Your task to perform on an android device: Is it going to rain tomorrow? Image 0: 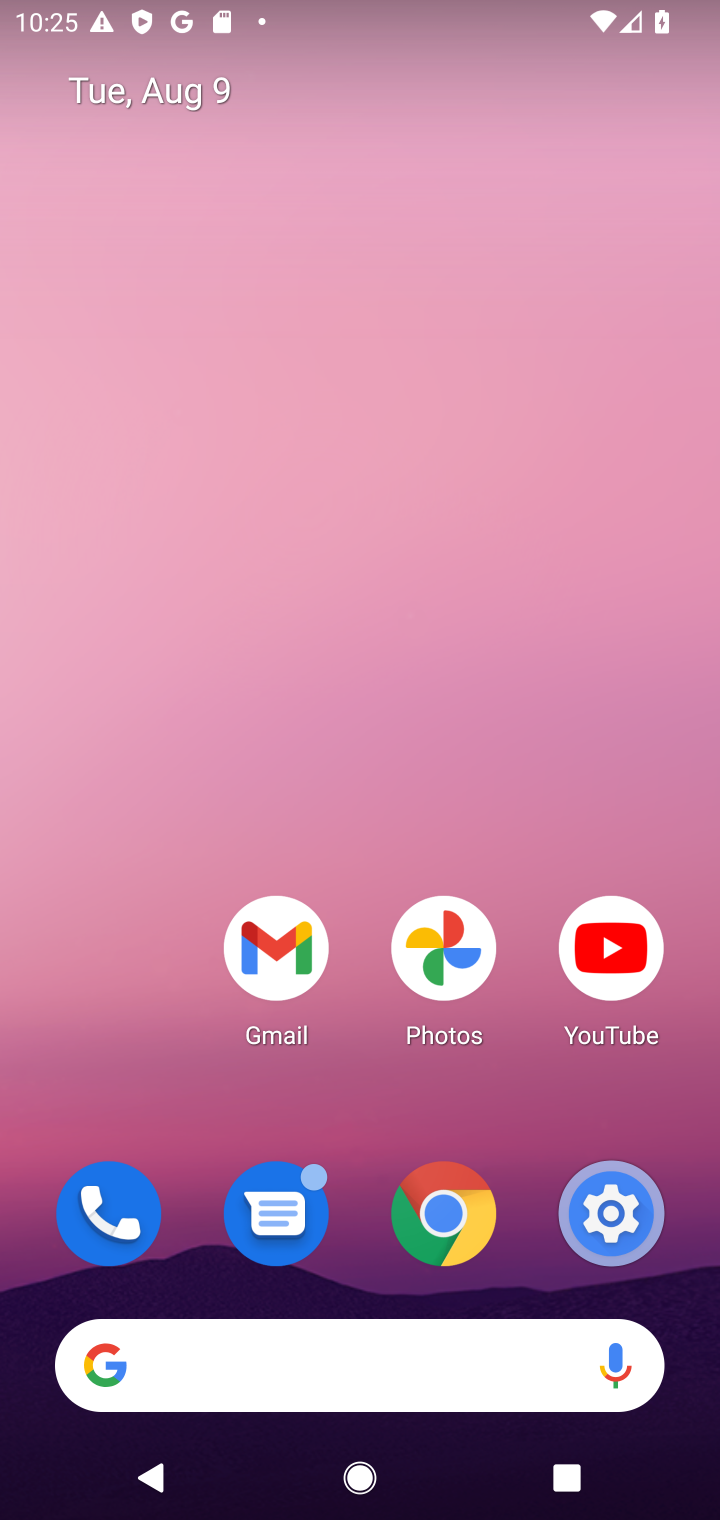
Step 0: drag from (365, 1268) to (428, 234)
Your task to perform on an android device: Is it going to rain tomorrow? Image 1: 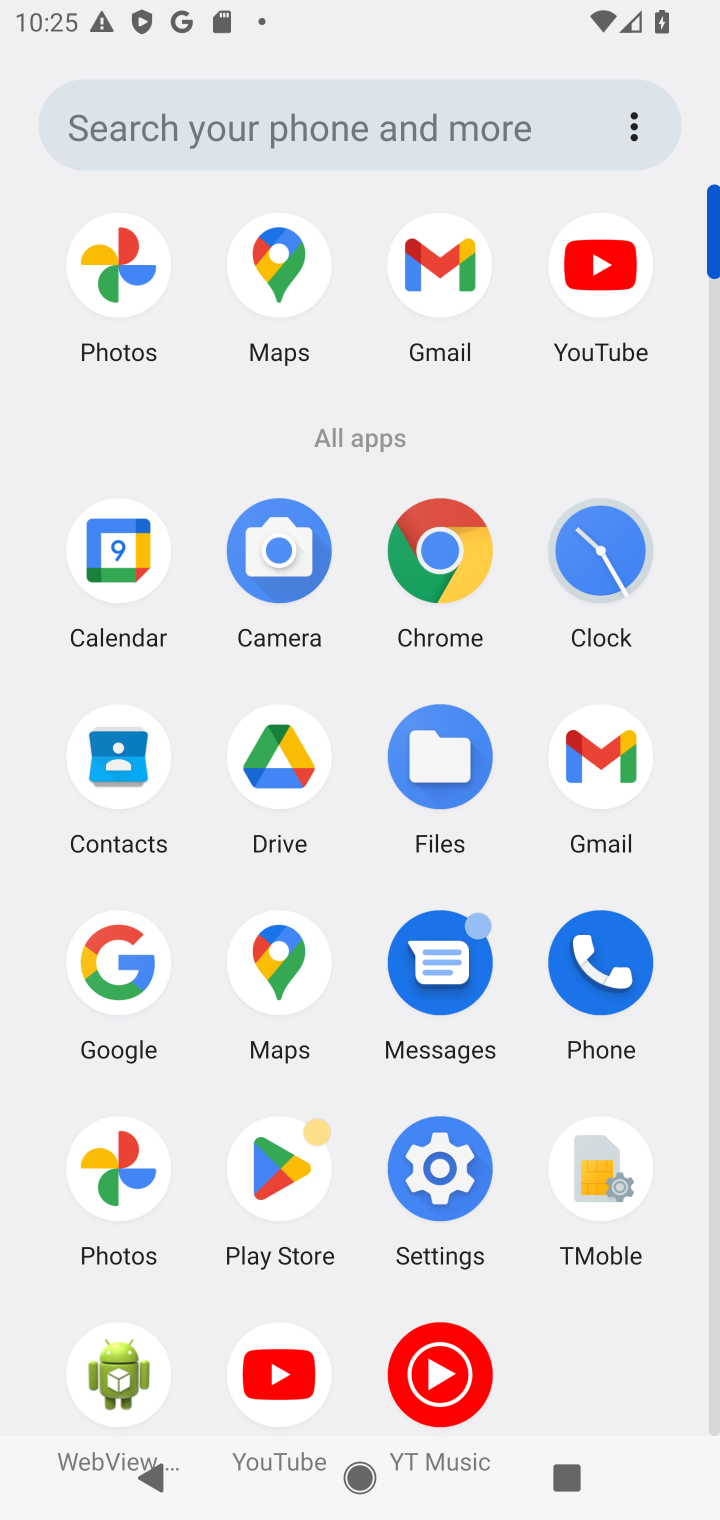
Step 1: click (100, 993)
Your task to perform on an android device: Is it going to rain tomorrow? Image 2: 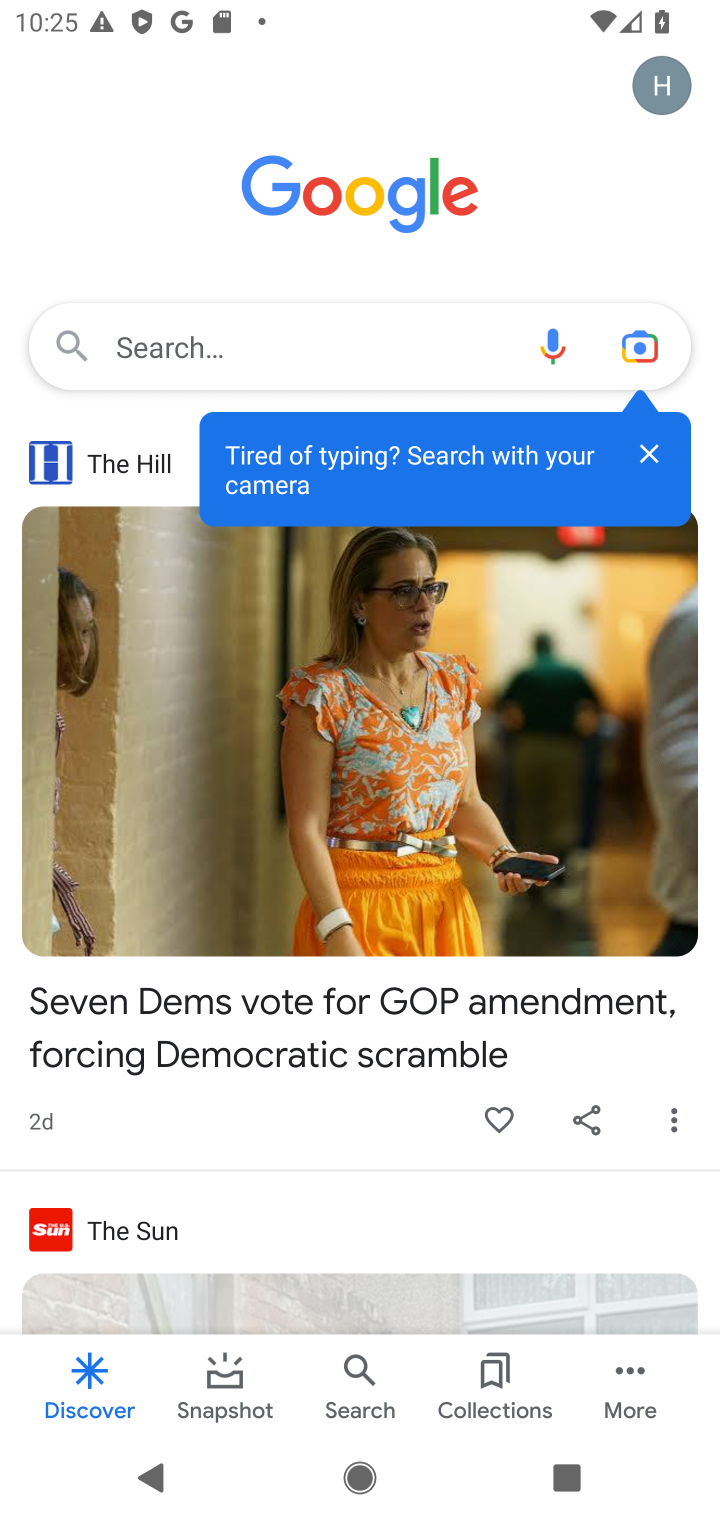
Step 2: click (134, 346)
Your task to perform on an android device: Is it going to rain tomorrow? Image 3: 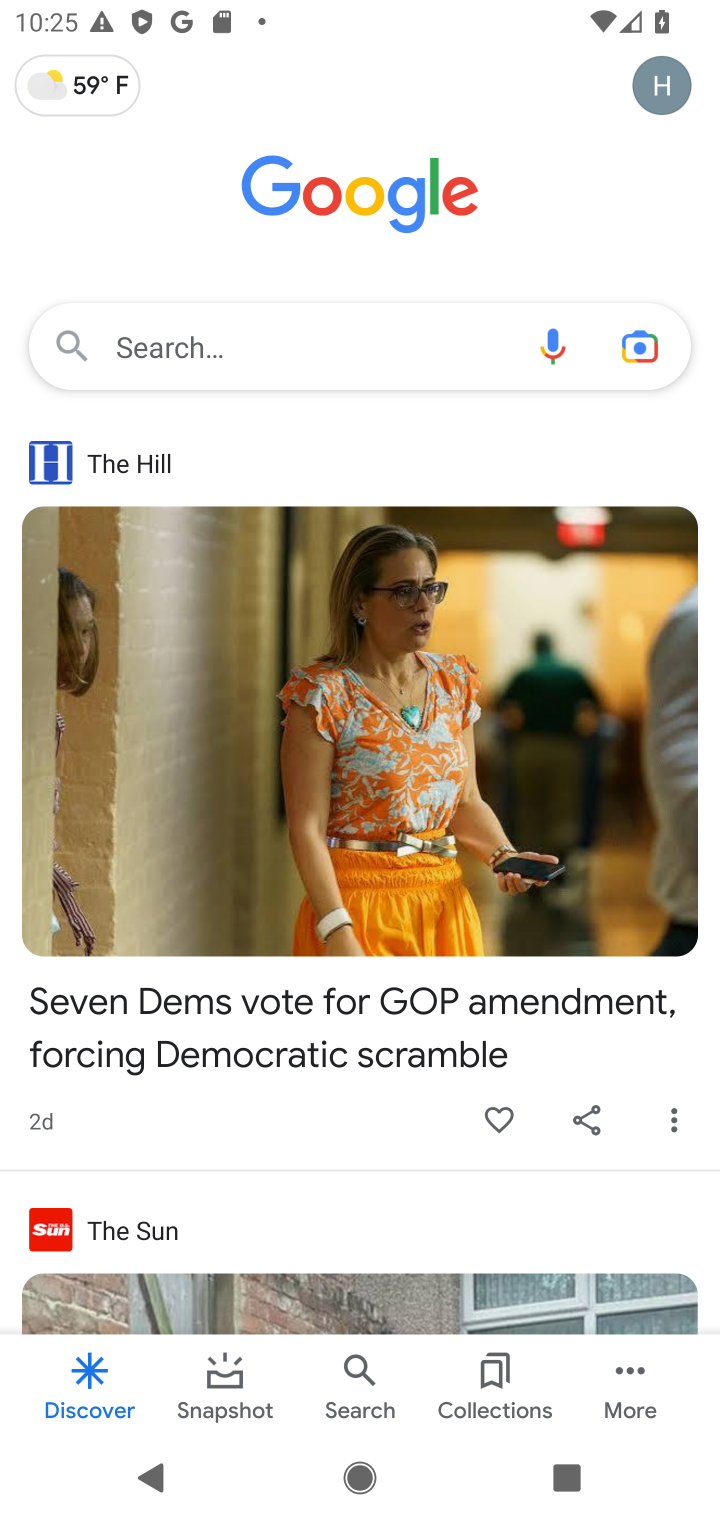
Step 3: click (252, 337)
Your task to perform on an android device: Is it going to rain tomorrow? Image 4: 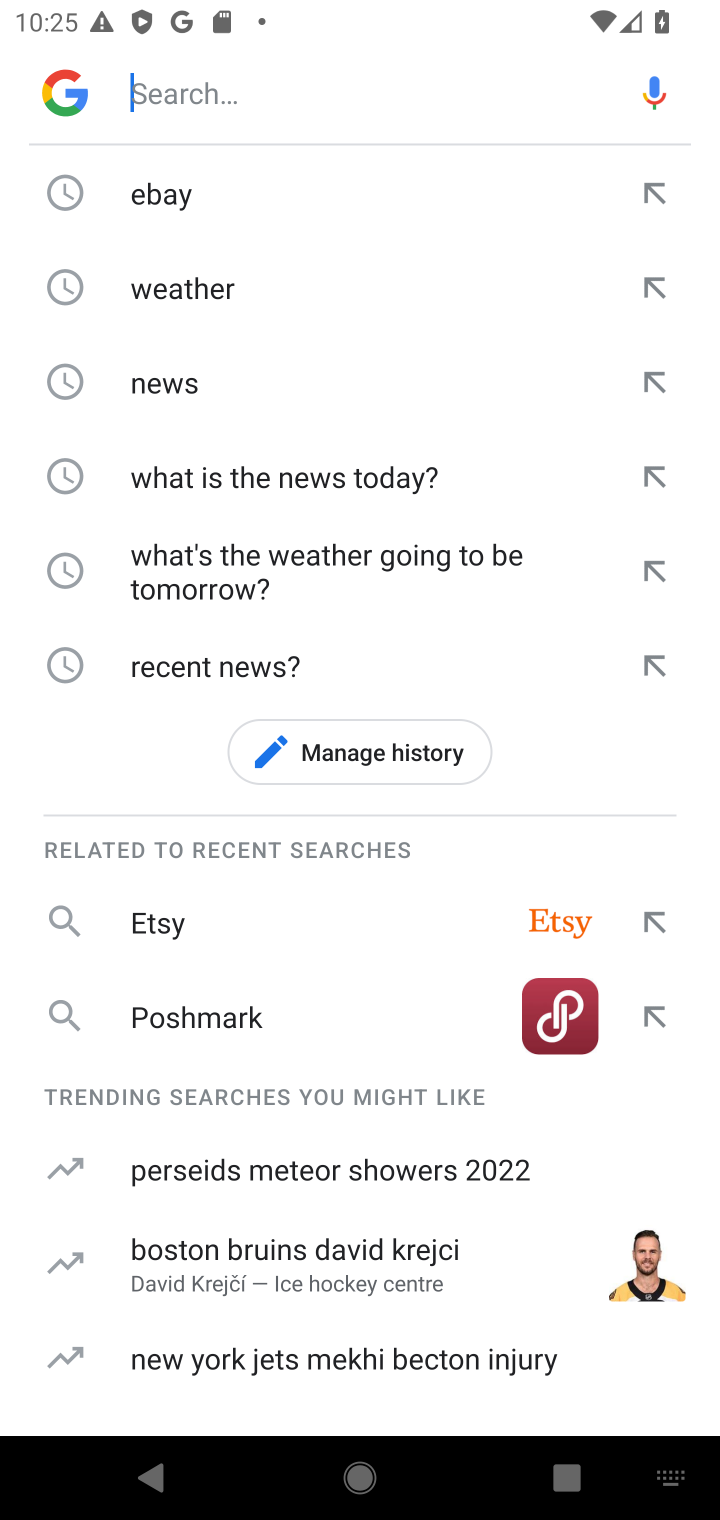
Step 4: click (200, 273)
Your task to perform on an android device: Is it going to rain tomorrow? Image 5: 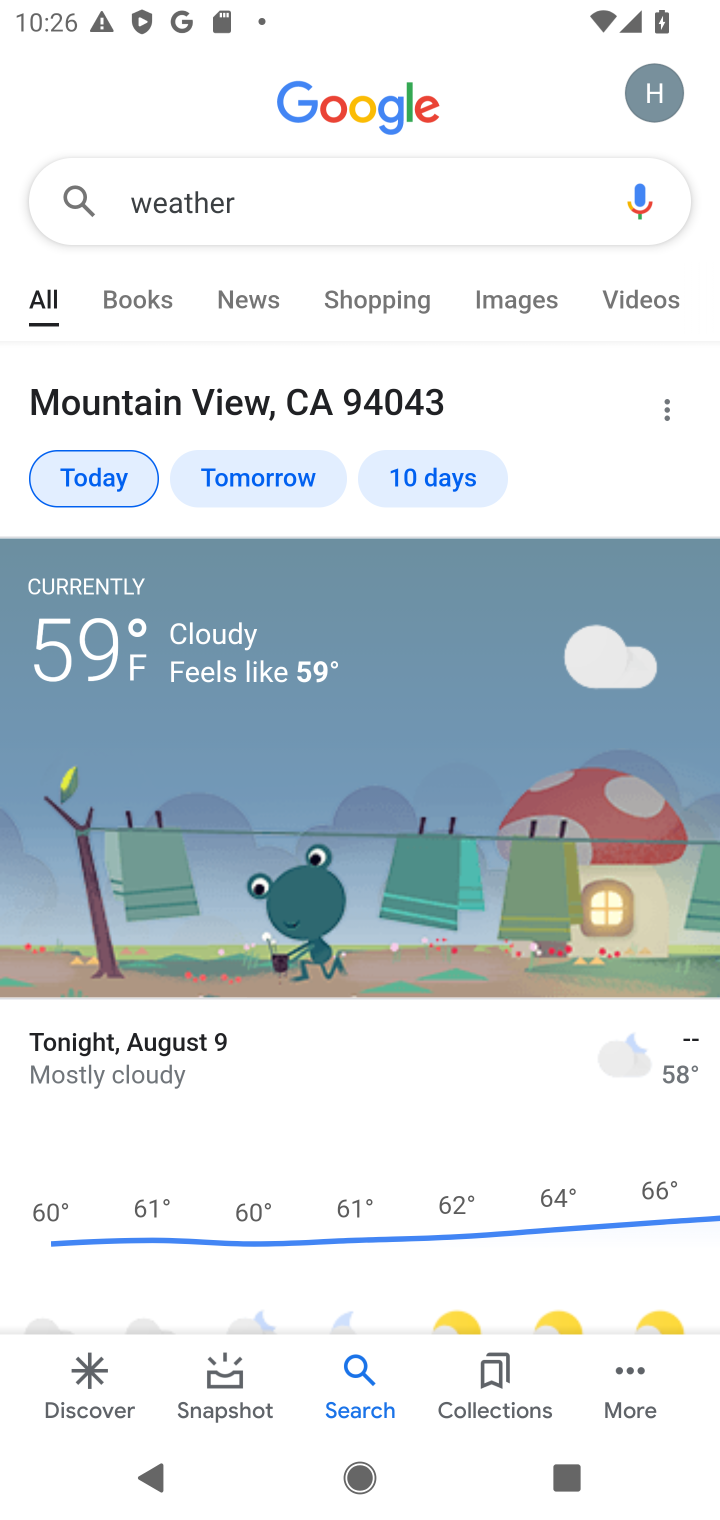
Step 5: click (277, 459)
Your task to perform on an android device: Is it going to rain tomorrow? Image 6: 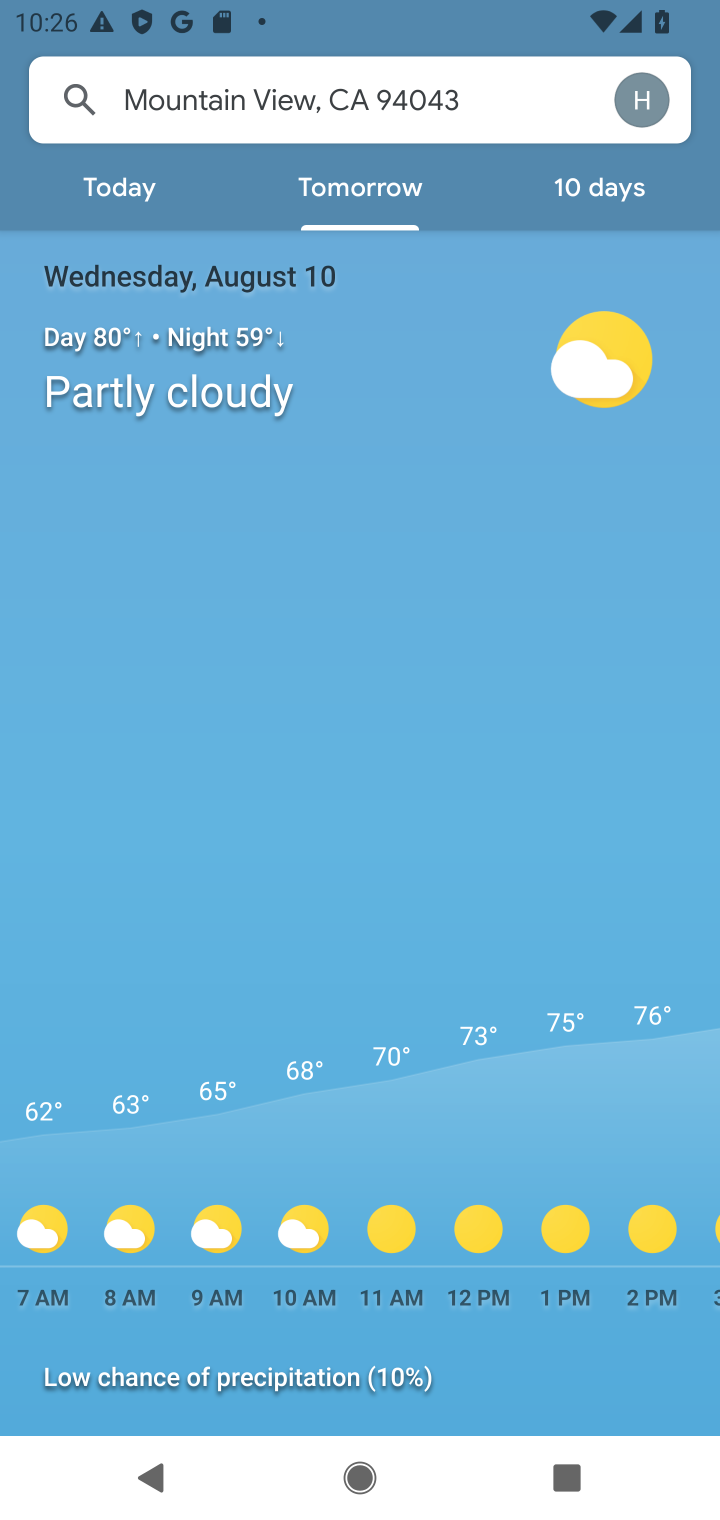
Step 6: task complete